Your task to perform on an android device: turn on the 12-hour format for clock Image 0: 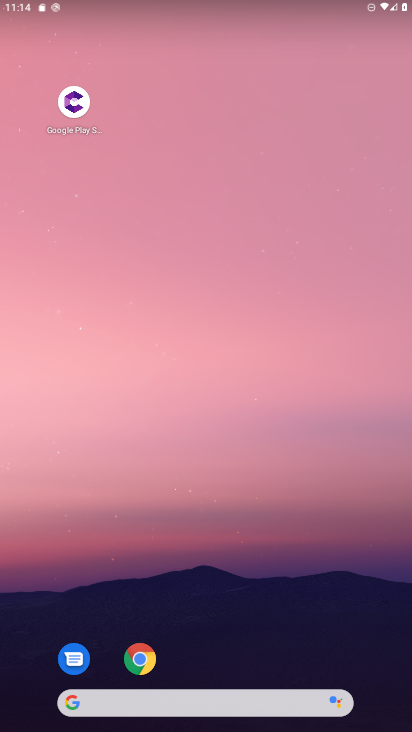
Step 0: drag from (273, 598) to (200, 136)
Your task to perform on an android device: turn on the 12-hour format for clock Image 1: 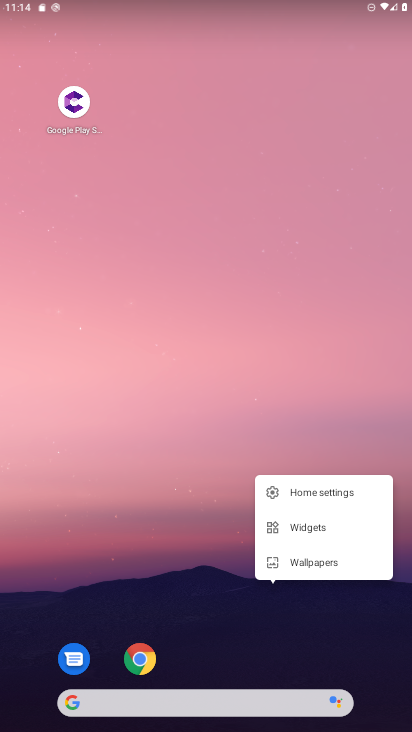
Step 1: drag from (365, 667) to (302, 39)
Your task to perform on an android device: turn on the 12-hour format for clock Image 2: 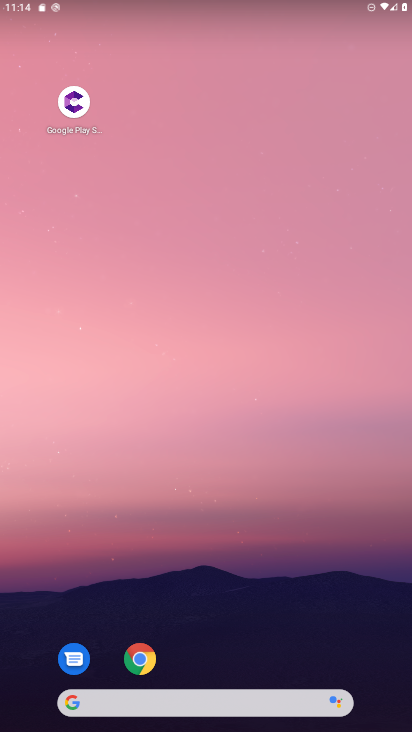
Step 2: drag from (386, 644) to (339, 55)
Your task to perform on an android device: turn on the 12-hour format for clock Image 3: 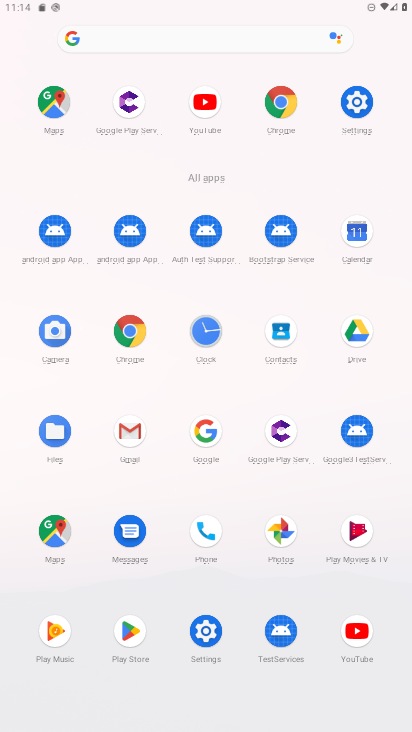
Step 3: click (215, 338)
Your task to perform on an android device: turn on the 12-hour format for clock Image 4: 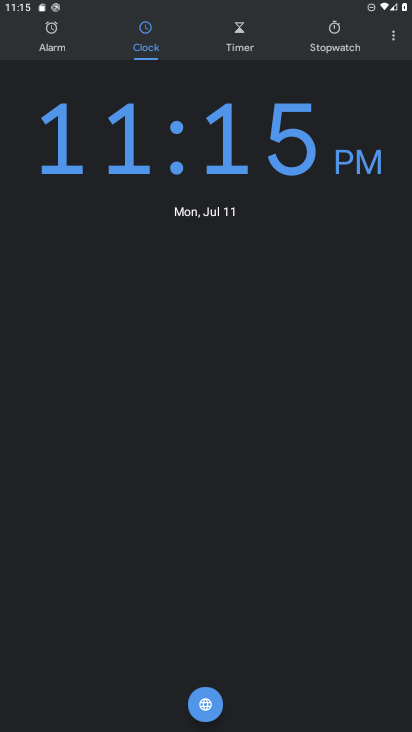
Step 4: click (397, 31)
Your task to perform on an android device: turn on the 12-hour format for clock Image 5: 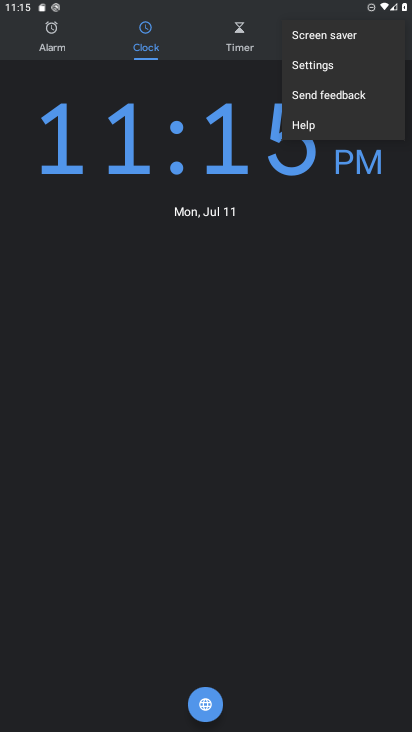
Step 5: click (343, 67)
Your task to perform on an android device: turn on the 12-hour format for clock Image 6: 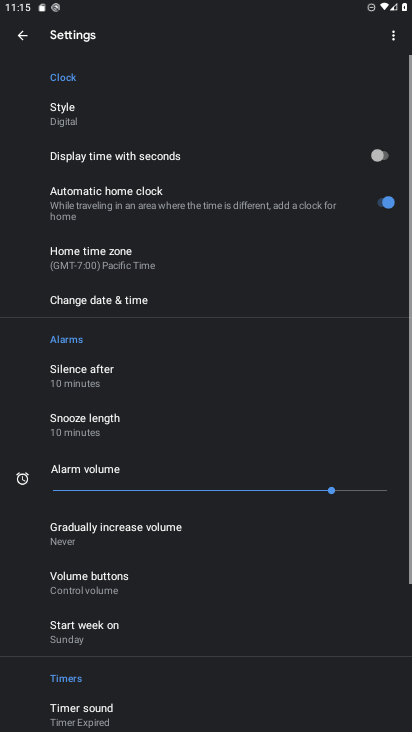
Step 6: click (337, 71)
Your task to perform on an android device: turn on the 12-hour format for clock Image 7: 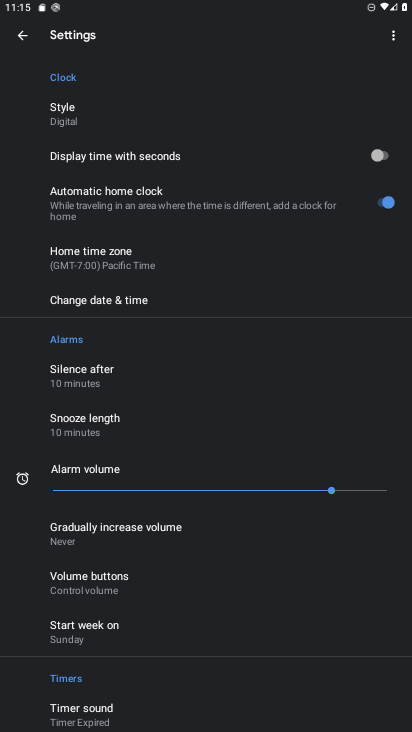
Step 7: click (220, 299)
Your task to perform on an android device: turn on the 12-hour format for clock Image 8: 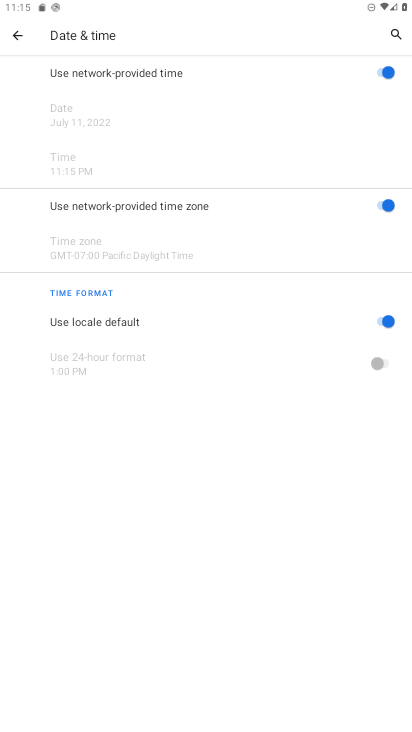
Step 8: task complete